Your task to perform on an android device: Go to accessibility settings Image 0: 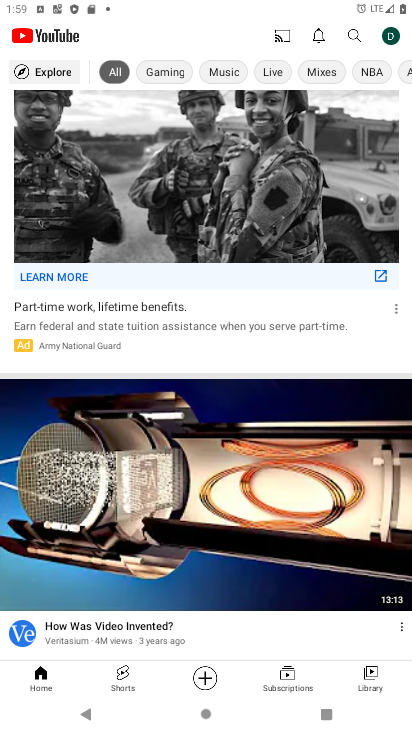
Step 0: press home button
Your task to perform on an android device: Go to accessibility settings Image 1: 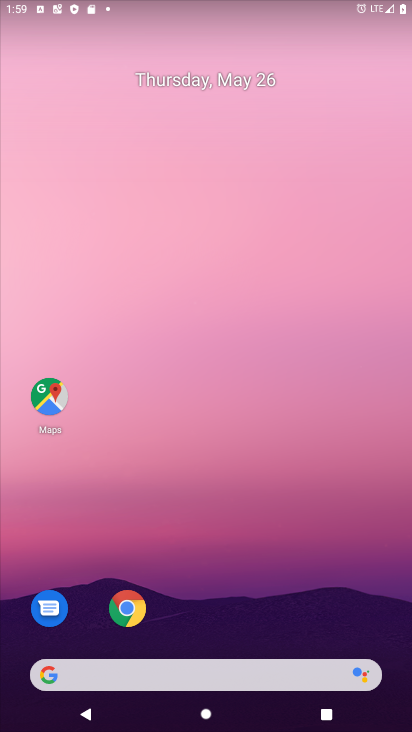
Step 1: drag from (358, 612) to (346, 297)
Your task to perform on an android device: Go to accessibility settings Image 2: 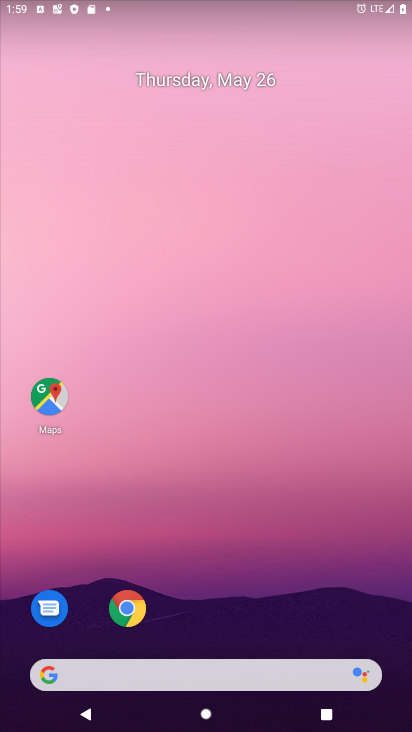
Step 2: drag from (343, 612) to (312, 152)
Your task to perform on an android device: Go to accessibility settings Image 3: 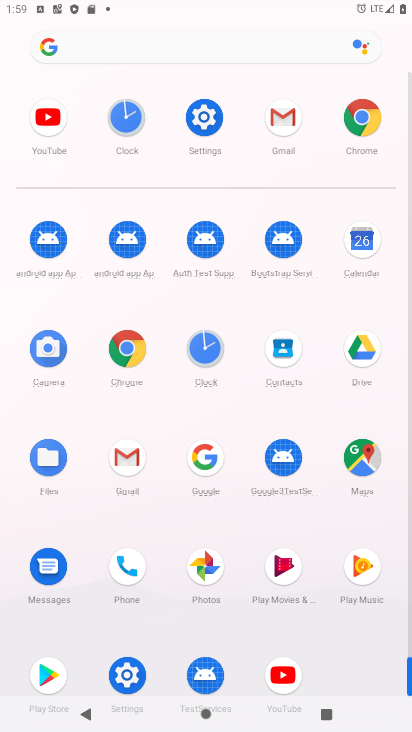
Step 3: click (128, 674)
Your task to perform on an android device: Go to accessibility settings Image 4: 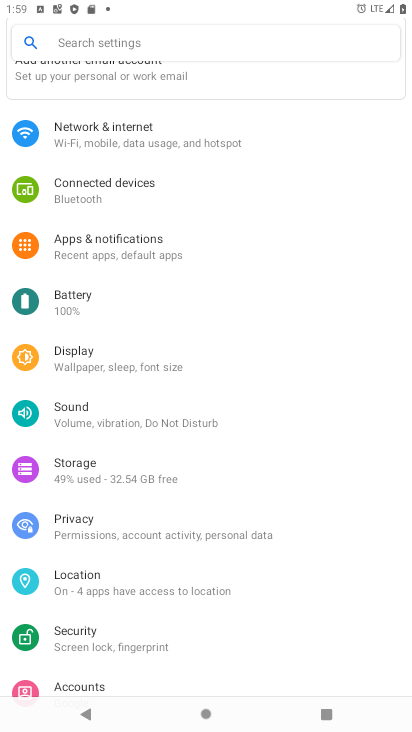
Step 4: drag from (304, 644) to (274, 235)
Your task to perform on an android device: Go to accessibility settings Image 5: 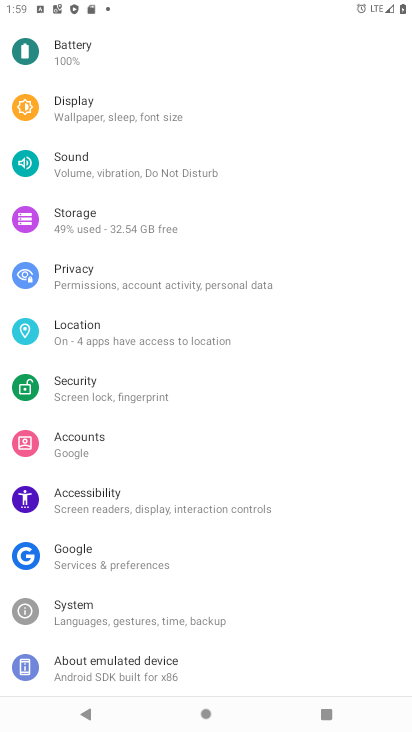
Step 5: click (69, 500)
Your task to perform on an android device: Go to accessibility settings Image 6: 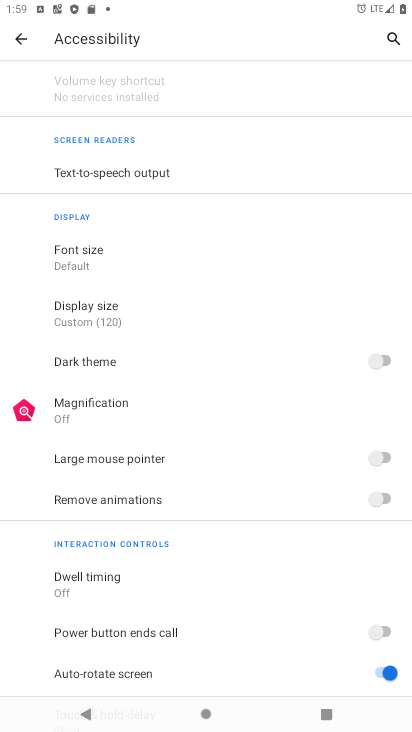
Step 6: task complete